Your task to perform on an android device: clear all cookies in the chrome app Image 0: 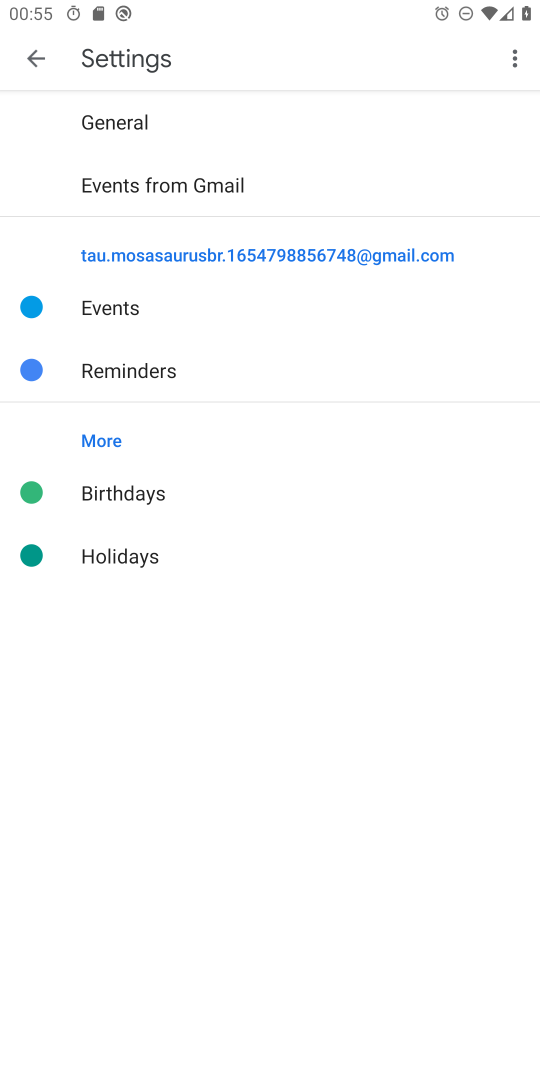
Step 0: press home button
Your task to perform on an android device: clear all cookies in the chrome app Image 1: 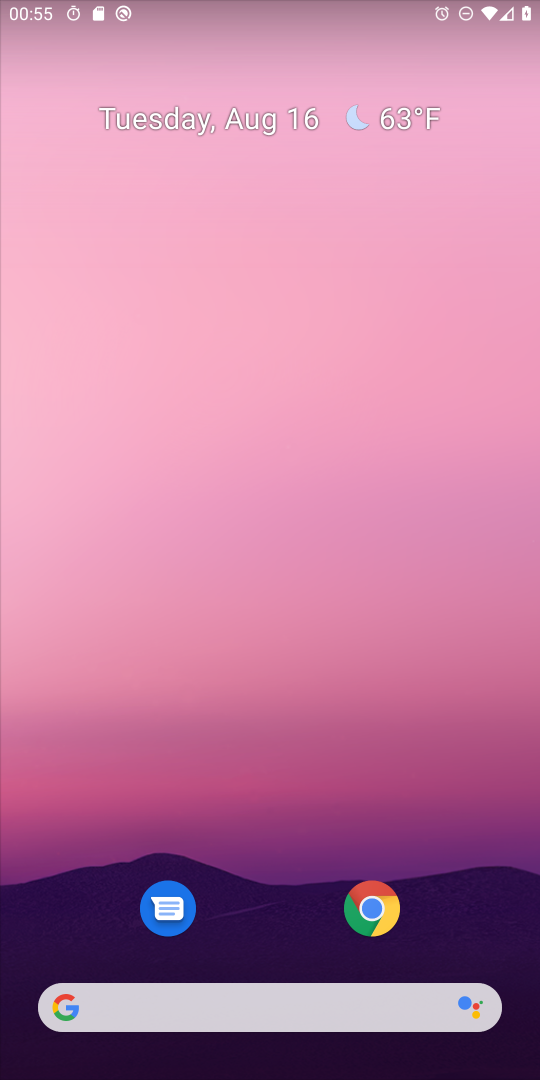
Step 1: click (370, 910)
Your task to perform on an android device: clear all cookies in the chrome app Image 2: 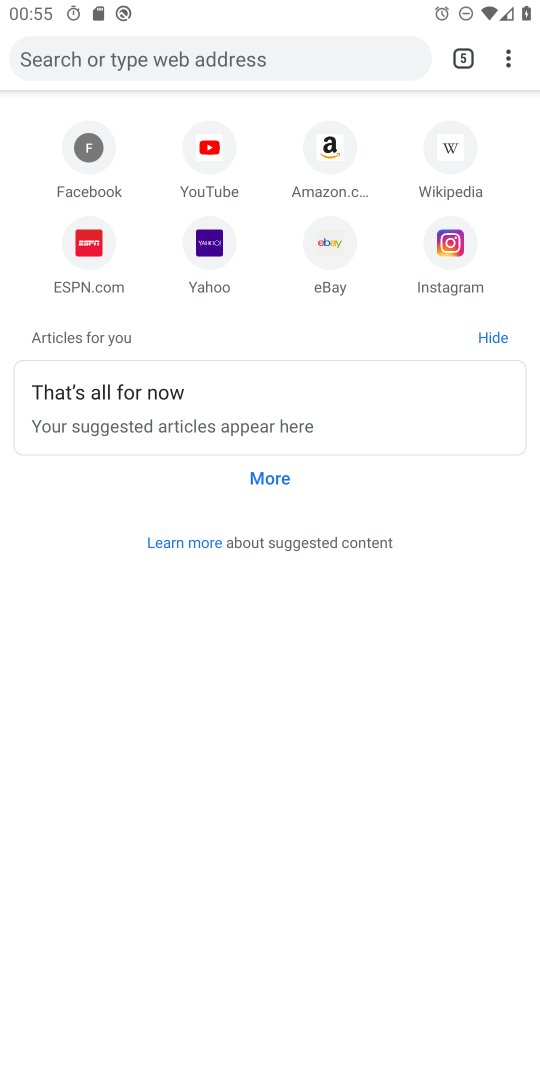
Step 2: click (522, 52)
Your task to perform on an android device: clear all cookies in the chrome app Image 3: 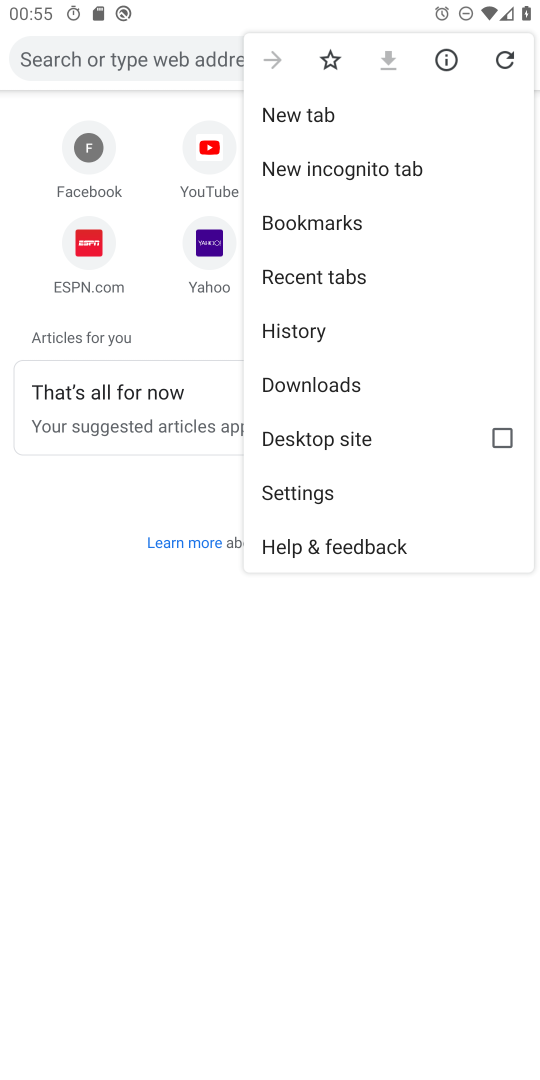
Step 3: click (340, 496)
Your task to perform on an android device: clear all cookies in the chrome app Image 4: 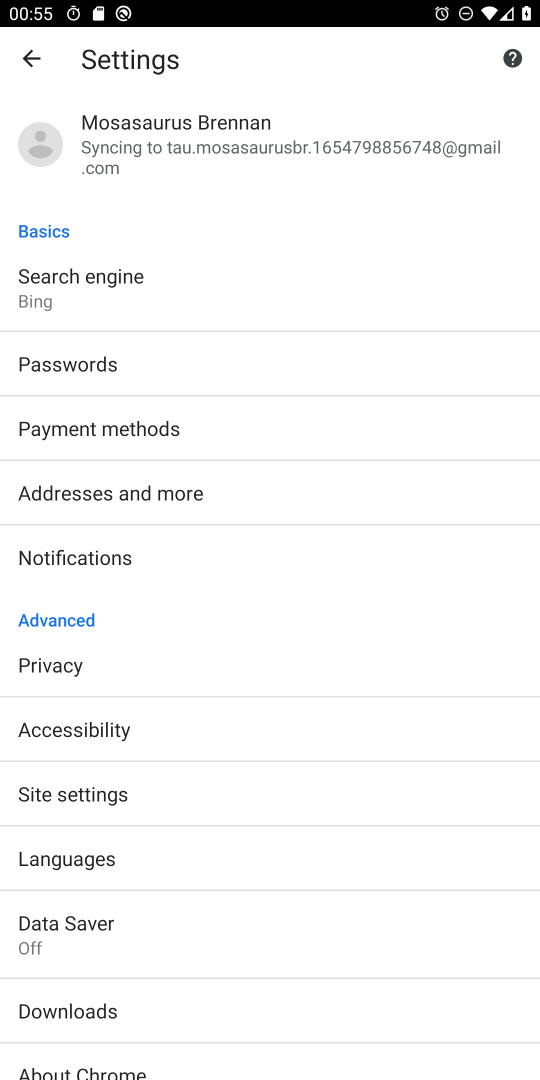
Step 4: click (42, 63)
Your task to perform on an android device: clear all cookies in the chrome app Image 5: 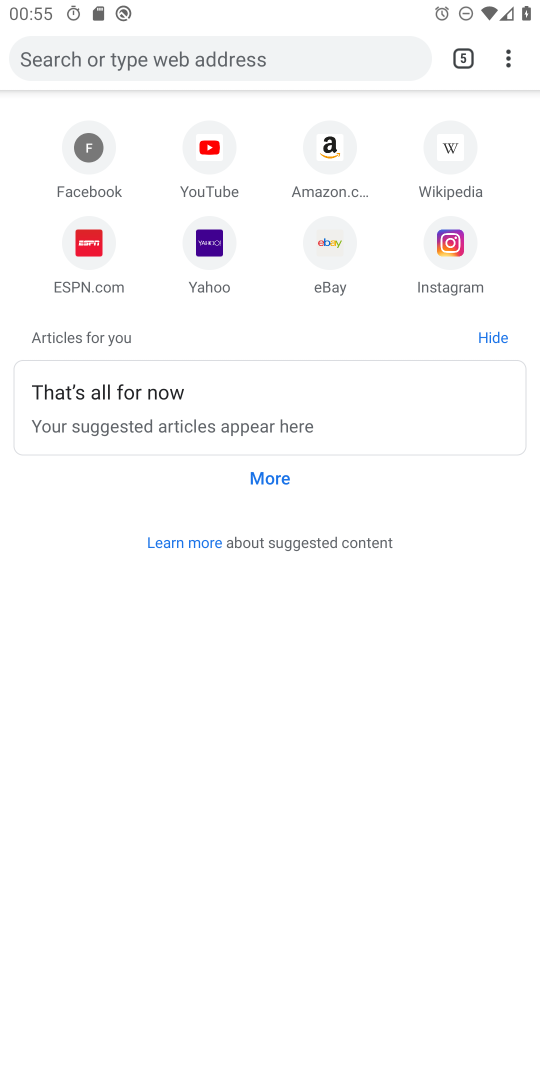
Step 5: click (515, 46)
Your task to perform on an android device: clear all cookies in the chrome app Image 6: 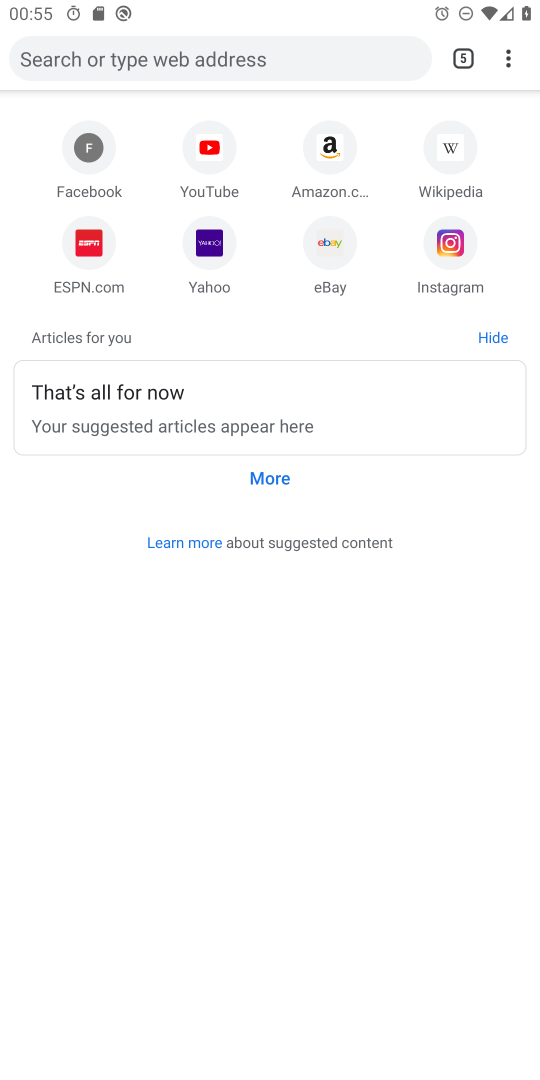
Step 6: click (518, 61)
Your task to perform on an android device: clear all cookies in the chrome app Image 7: 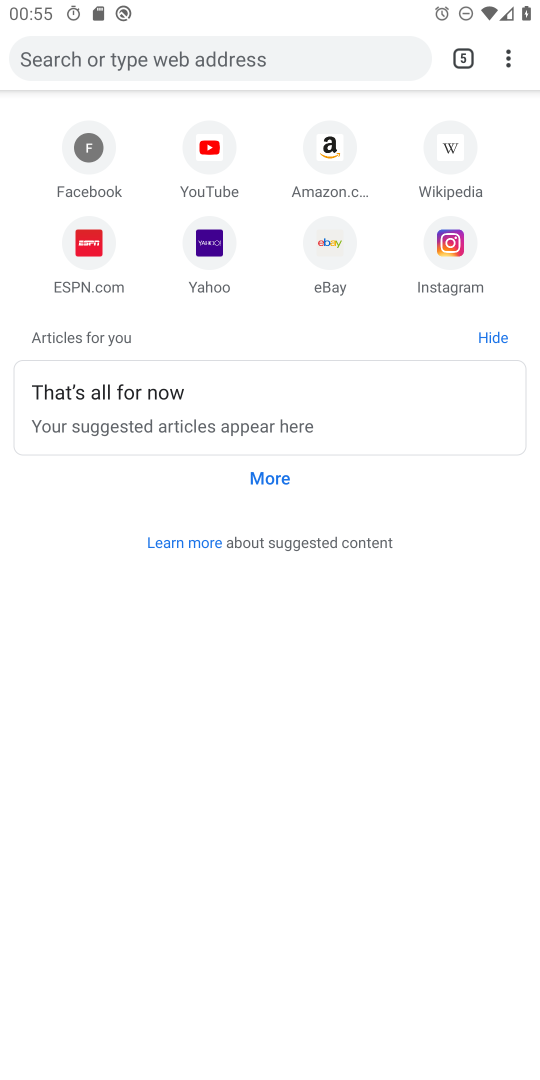
Step 7: click (505, 58)
Your task to perform on an android device: clear all cookies in the chrome app Image 8: 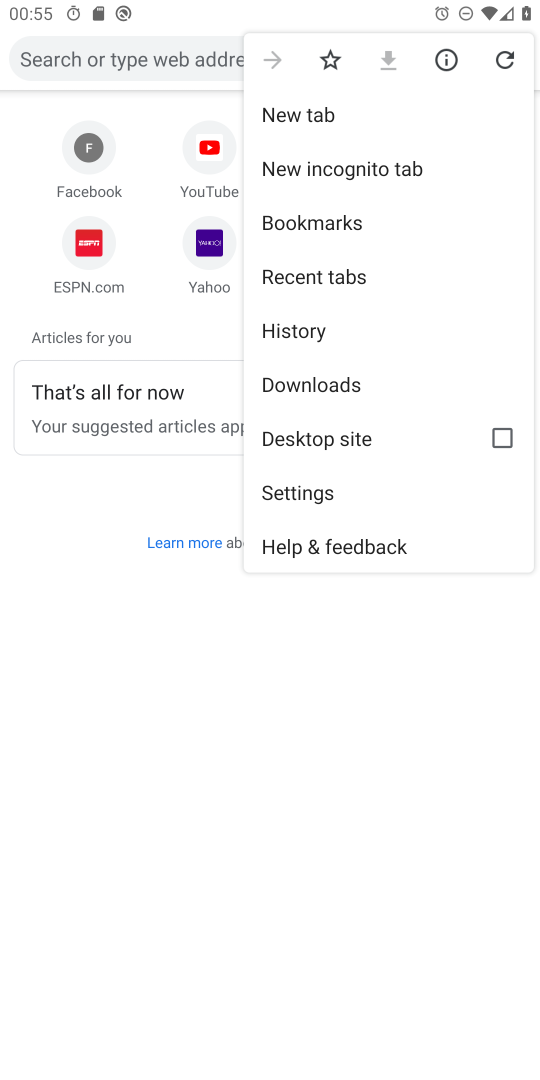
Step 8: click (312, 340)
Your task to perform on an android device: clear all cookies in the chrome app Image 9: 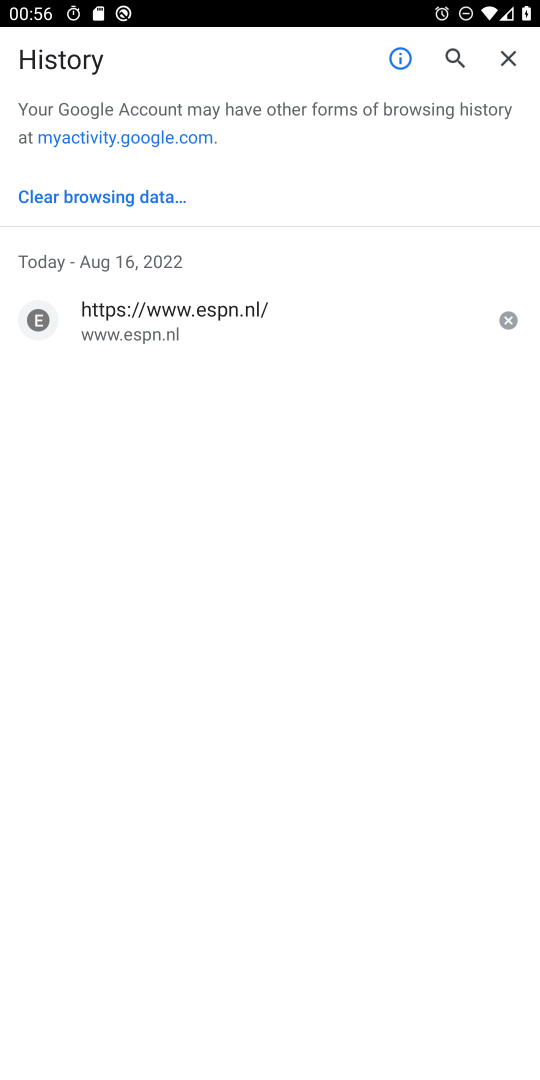
Step 9: click (156, 207)
Your task to perform on an android device: clear all cookies in the chrome app Image 10: 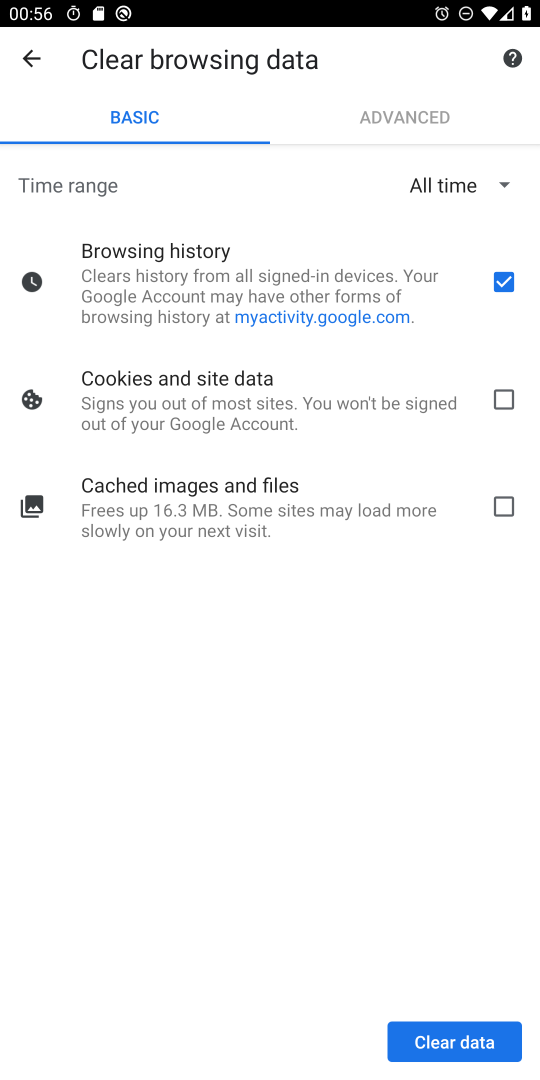
Step 10: click (497, 401)
Your task to perform on an android device: clear all cookies in the chrome app Image 11: 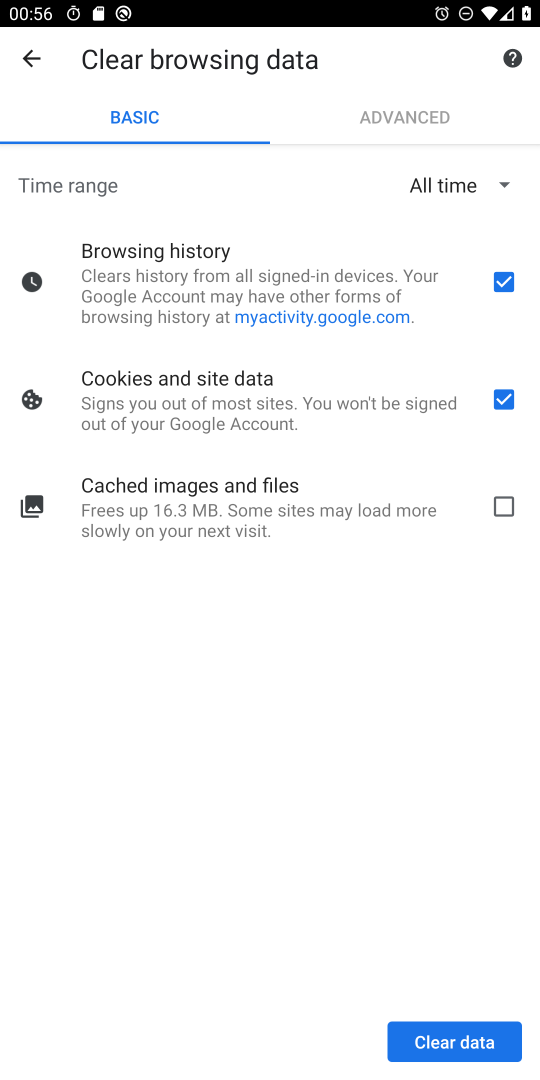
Step 11: click (510, 277)
Your task to perform on an android device: clear all cookies in the chrome app Image 12: 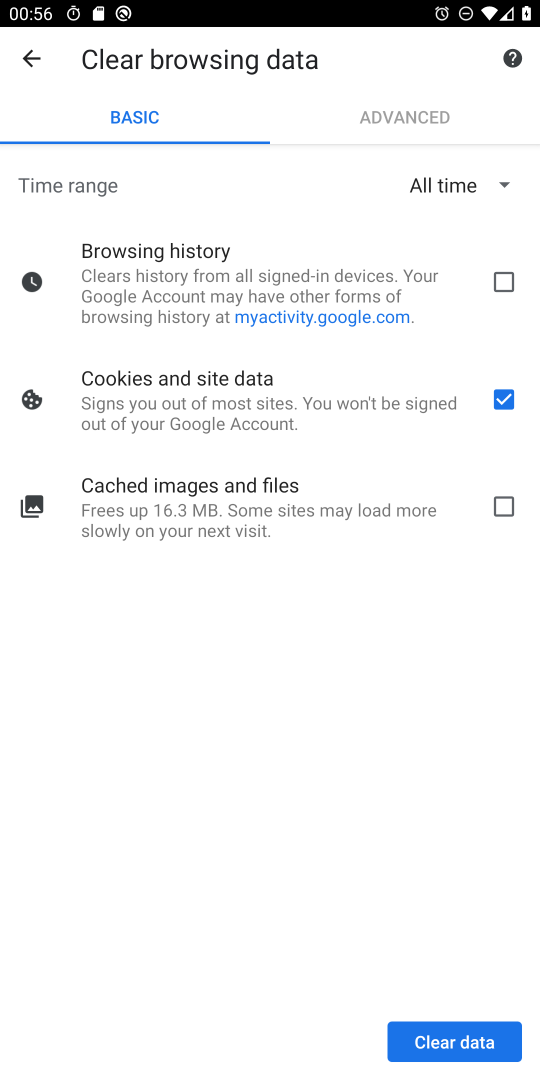
Step 12: click (436, 1051)
Your task to perform on an android device: clear all cookies in the chrome app Image 13: 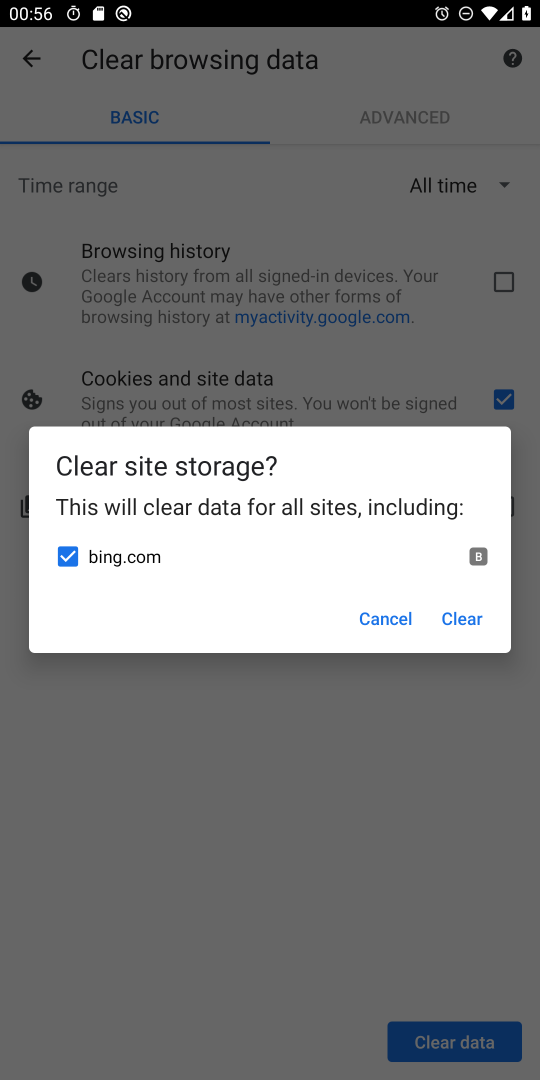
Step 13: click (475, 614)
Your task to perform on an android device: clear all cookies in the chrome app Image 14: 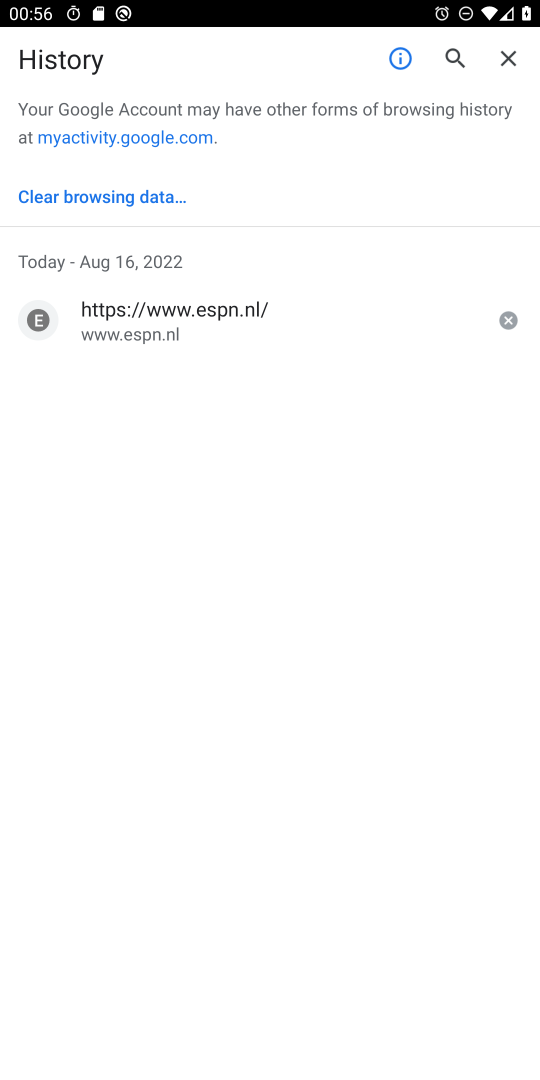
Step 14: task complete